Your task to perform on an android device: Open Chrome and go to settings Image 0: 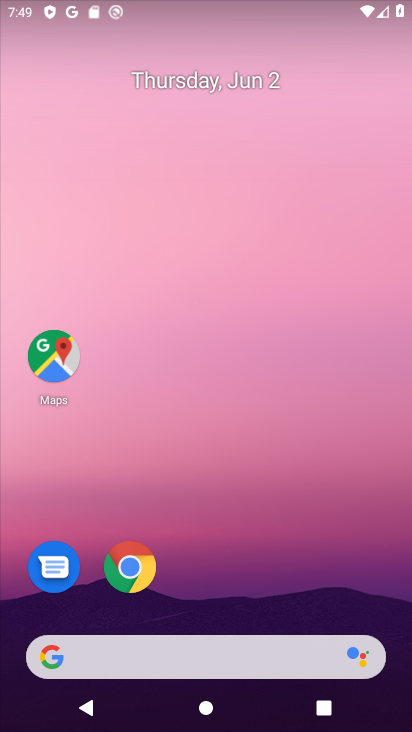
Step 0: click (128, 572)
Your task to perform on an android device: Open Chrome and go to settings Image 1: 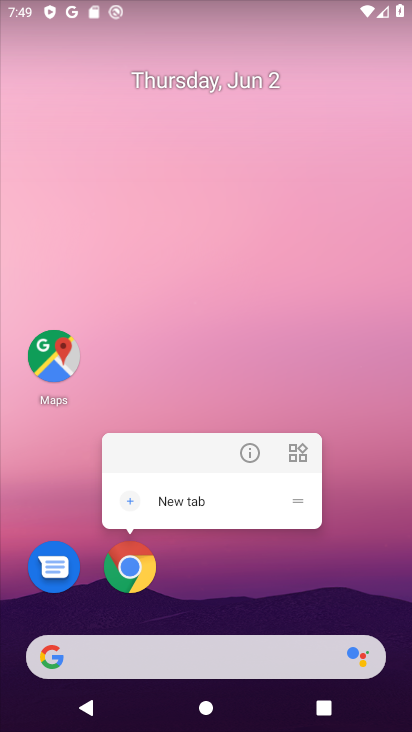
Step 1: click (129, 569)
Your task to perform on an android device: Open Chrome and go to settings Image 2: 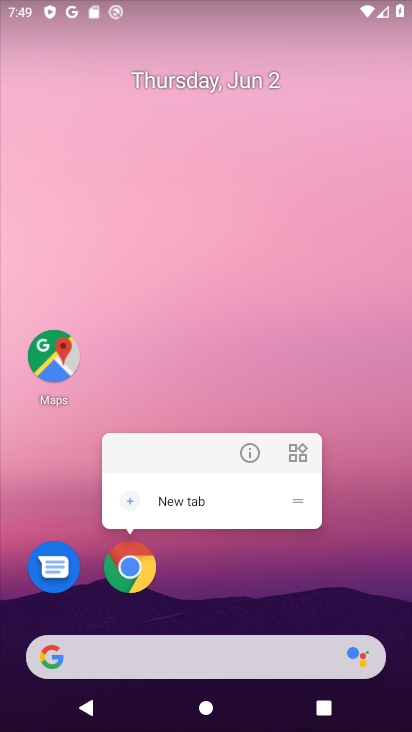
Step 2: click (129, 567)
Your task to perform on an android device: Open Chrome and go to settings Image 3: 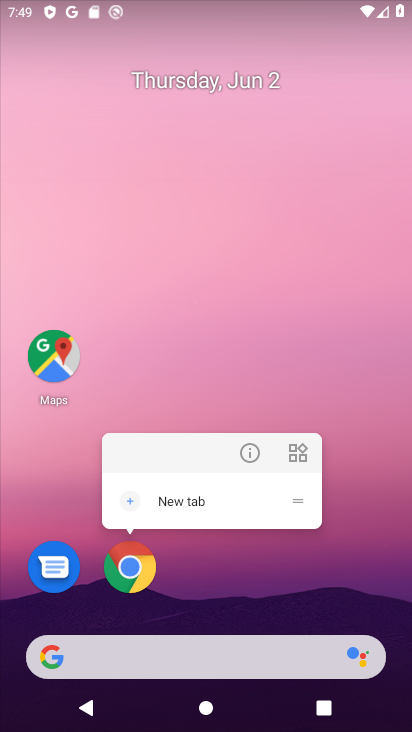
Step 3: click (191, 579)
Your task to perform on an android device: Open Chrome and go to settings Image 4: 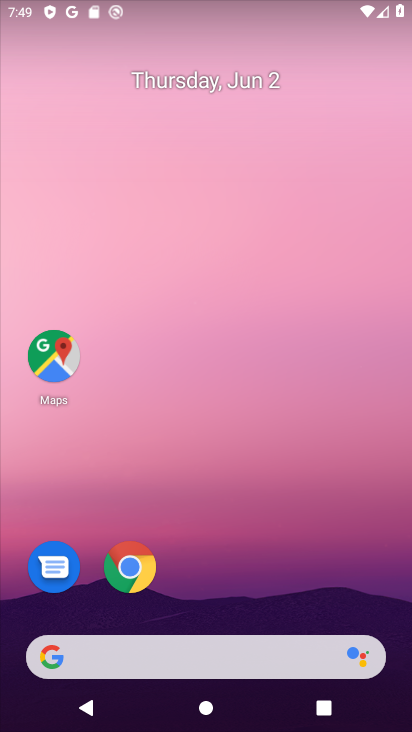
Step 4: click (135, 580)
Your task to perform on an android device: Open Chrome and go to settings Image 5: 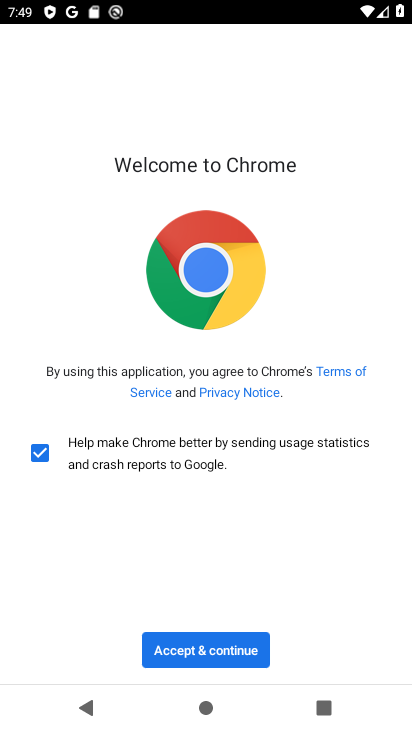
Step 5: click (177, 652)
Your task to perform on an android device: Open Chrome and go to settings Image 6: 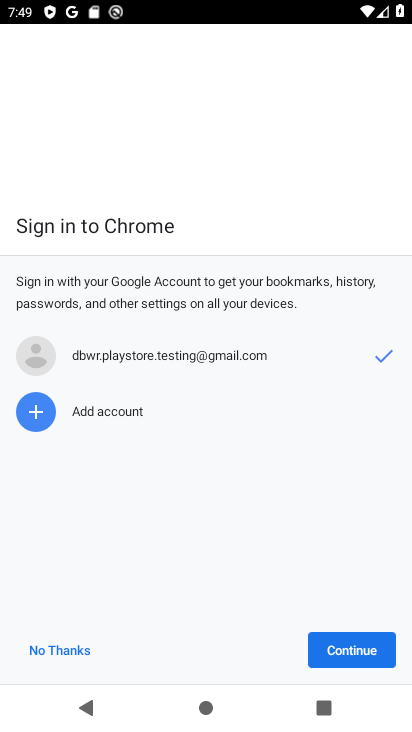
Step 6: click (318, 655)
Your task to perform on an android device: Open Chrome and go to settings Image 7: 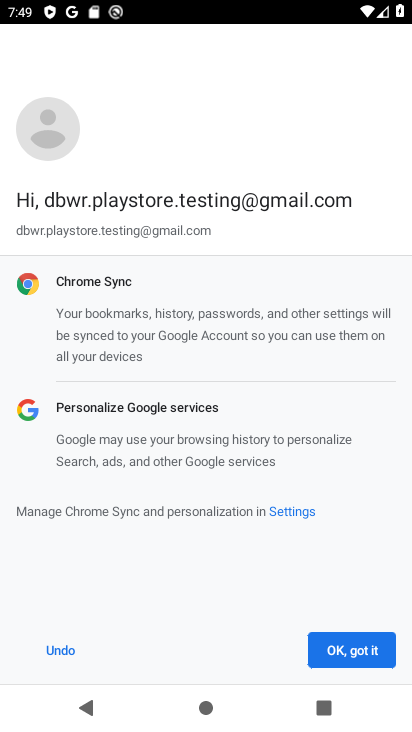
Step 7: click (343, 645)
Your task to perform on an android device: Open Chrome and go to settings Image 8: 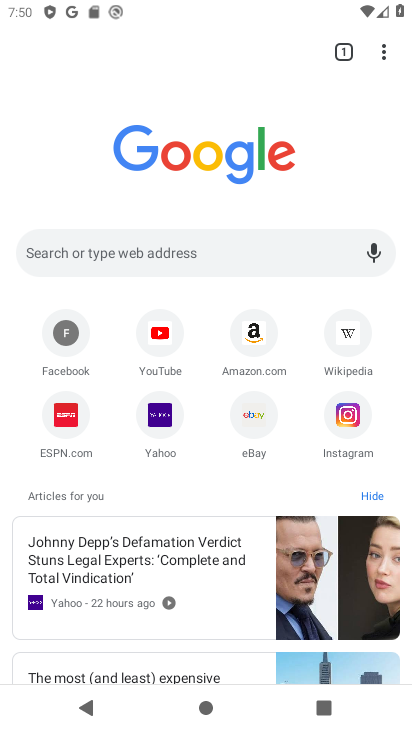
Step 8: click (382, 48)
Your task to perform on an android device: Open Chrome and go to settings Image 9: 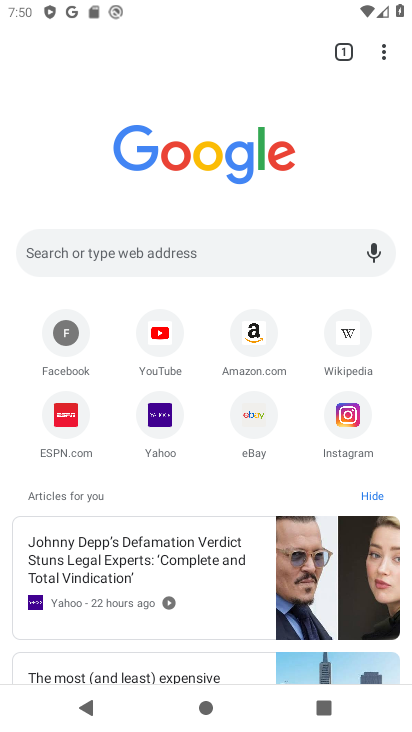
Step 9: click (385, 54)
Your task to perform on an android device: Open Chrome and go to settings Image 10: 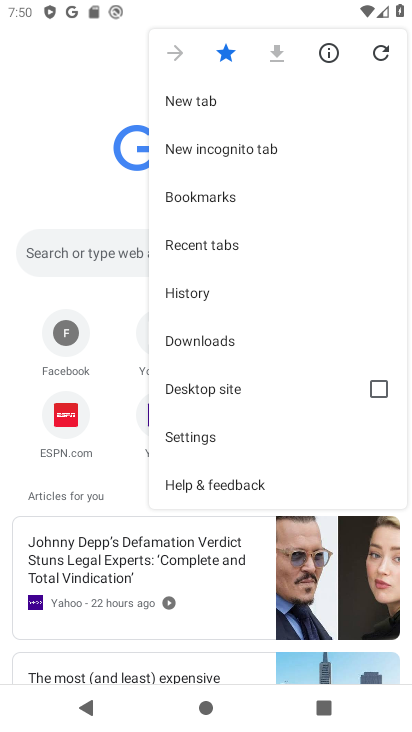
Step 10: click (216, 430)
Your task to perform on an android device: Open Chrome and go to settings Image 11: 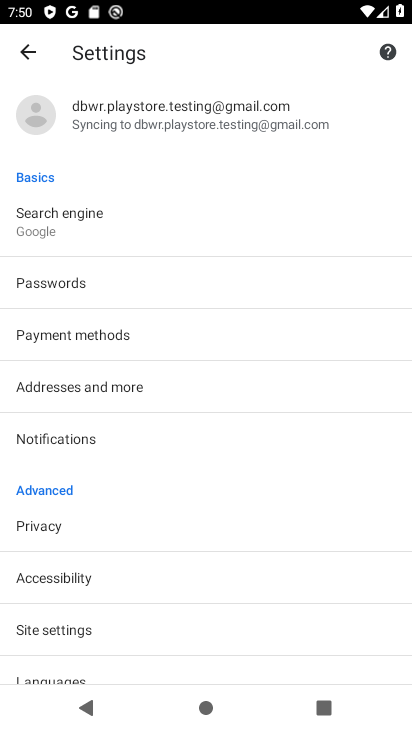
Step 11: task complete